Your task to perform on an android device: Open network settings Image 0: 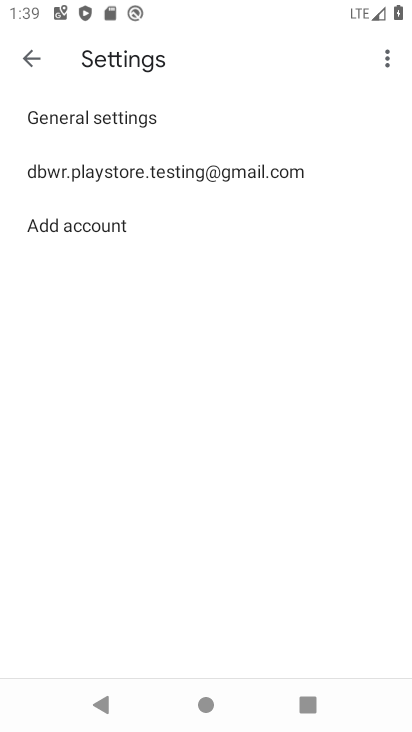
Step 0: press home button
Your task to perform on an android device: Open network settings Image 1: 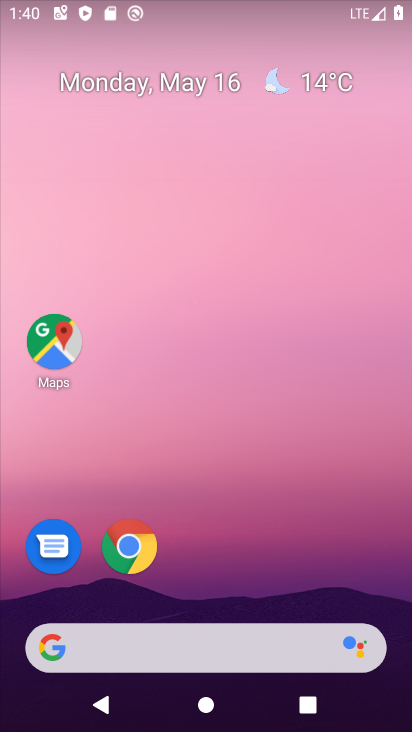
Step 1: drag from (256, 672) to (221, 139)
Your task to perform on an android device: Open network settings Image 2: 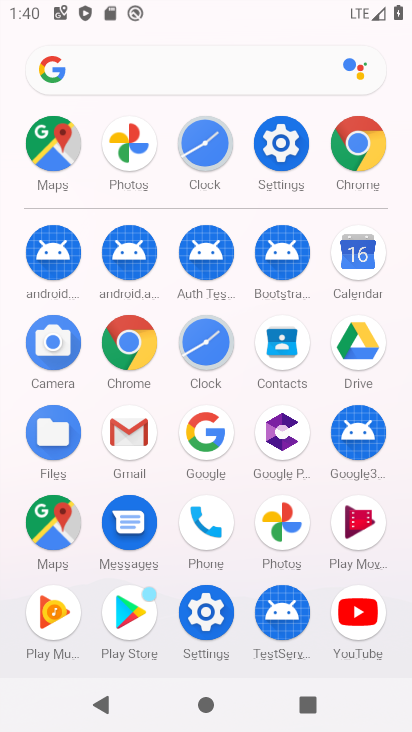
Step 2: click (194, 601)
Your task to perform on an android device: Open network settings Image 3: 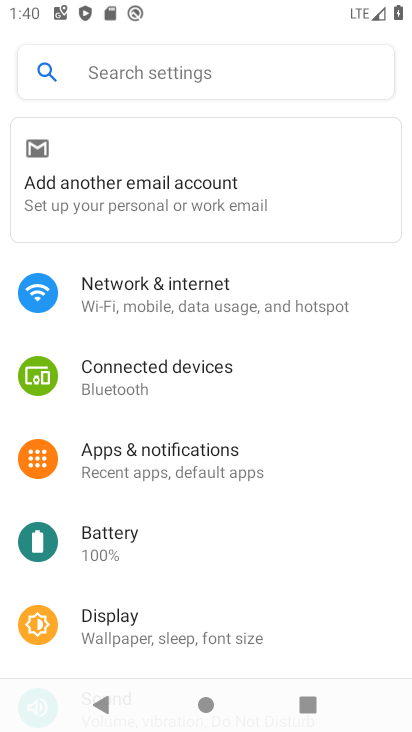
Step 3: click (151, 306)
Your task to perform on an android device: Open network settings Image 4: 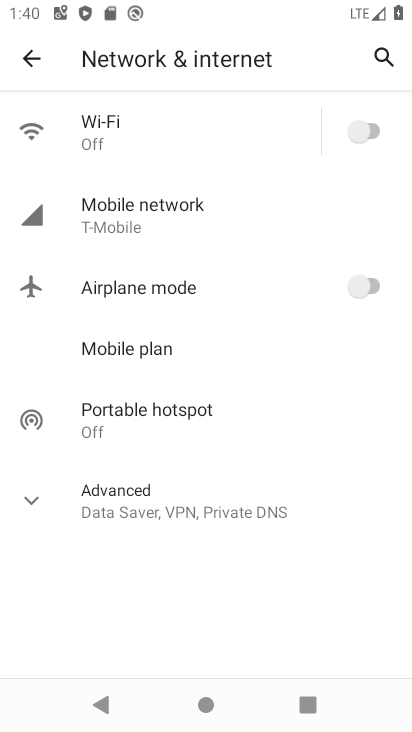
Step 4: task complete